Your task to perform on an android device: Open Android settings Image 0: 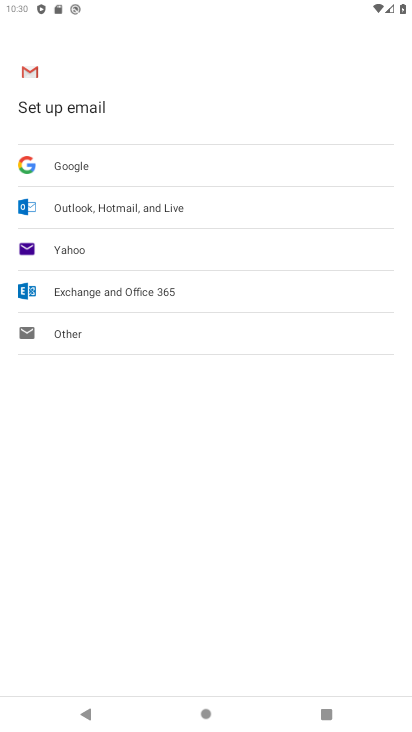
Step 0: press home button
Your task to perform on an android device: Open Android settings Image 1: 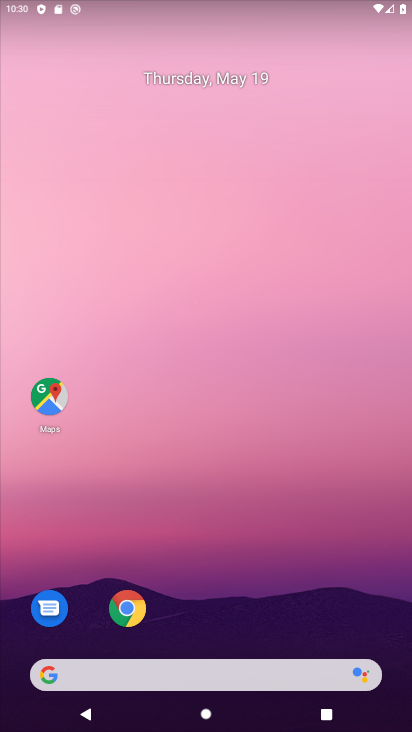
Step 1: drag from (411, 515) to (409, 249)
Your task to perform on an android device: Open Android settings Image 2: 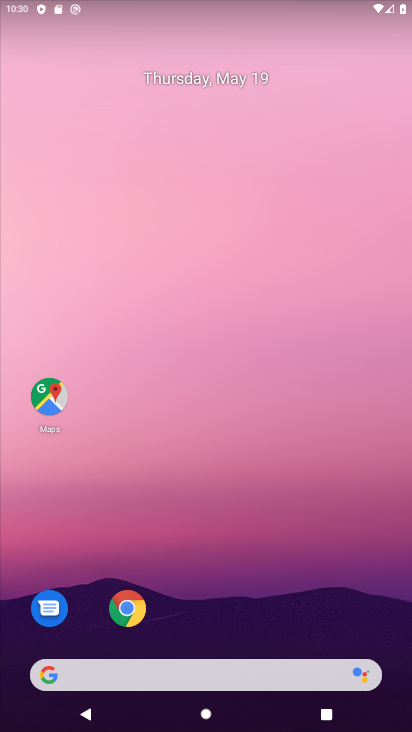
Step 2: drag from (389, 706) to (366, 269)
Your task to perform on an android device: Open Android settings Image 3: 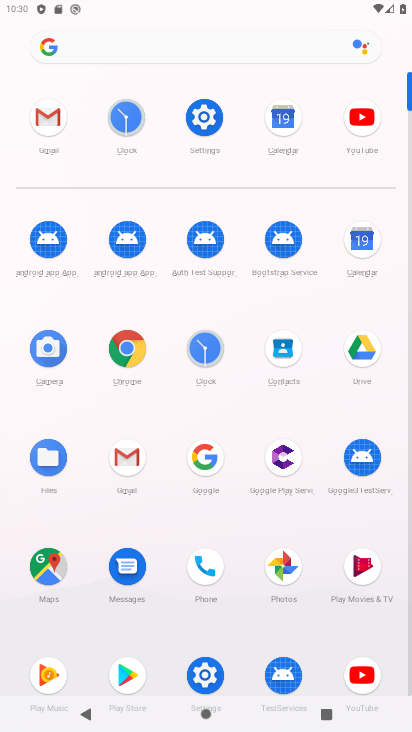
Step 3: click (203, 674)
Your task to perform on an android device: Open Android settings Image 4: 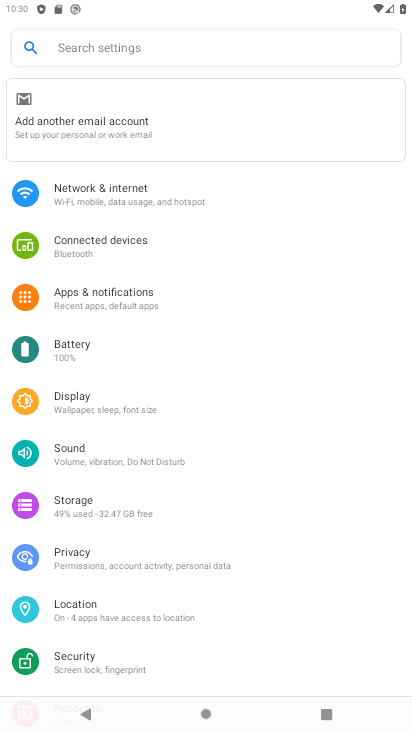
Step 4: task complete